Your task to perform on an android device: Go to Google Image 0: 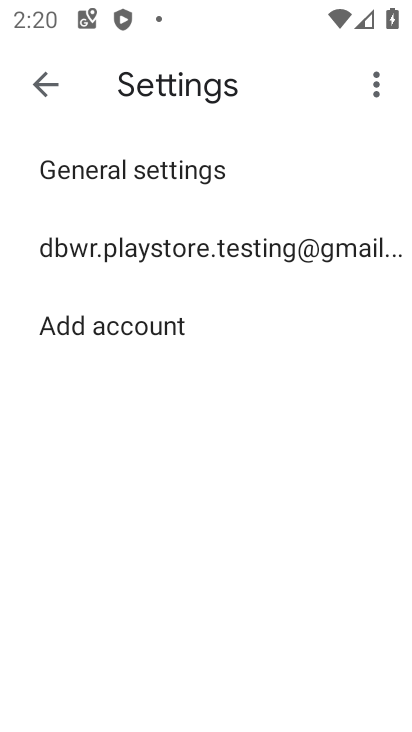
Step 0: press home button
Your task to perform on an android device: Go to Google Image 1: 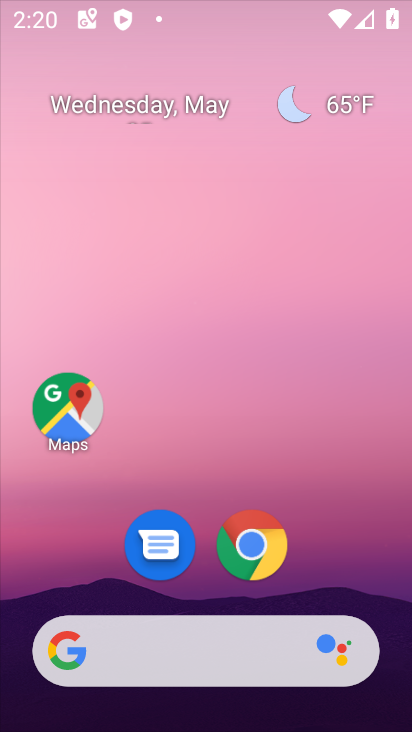
Step 1: drag from (324, 488) to (283, 12)
Your task to perform on an android device: Go to Google Image 2: 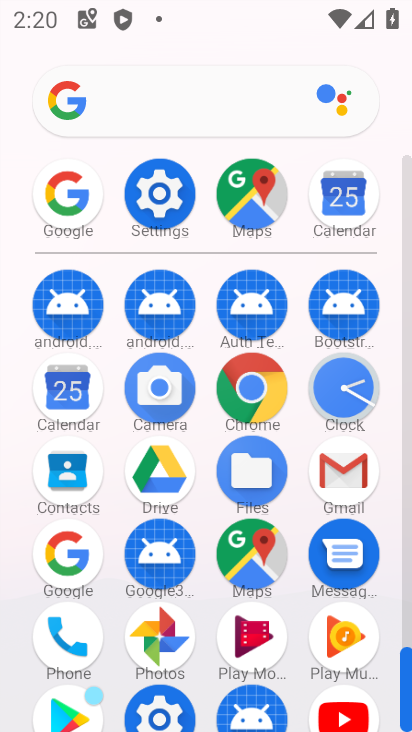
Step 2: click (70, 574)
Your task to perform on an android device: Go to Google Image 3: 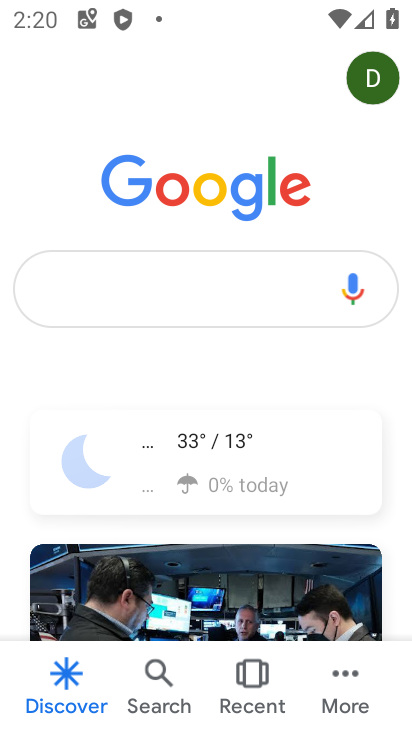
Step 3: task complete